Your task to perform on an android device: Go to Google maps Image 0: 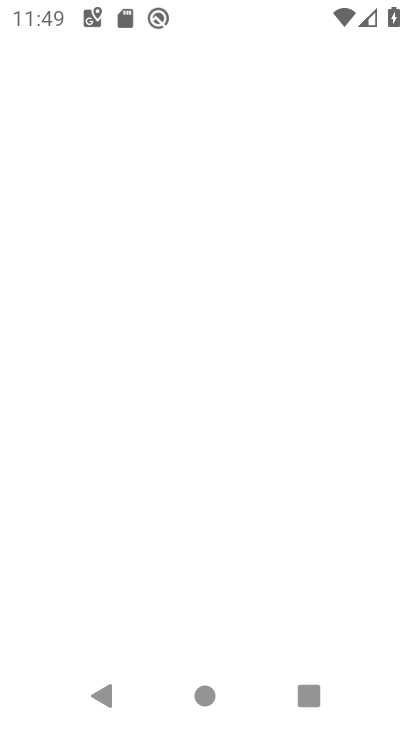
Step 0: drag from (203, 697) to (192, 21)
Your task to perform on an android device: Go to Google maps Image 1: 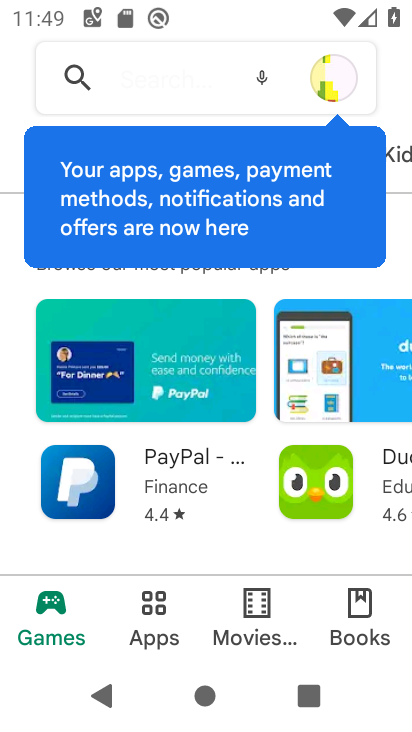
Step 1: press back button
Your task to perform on an android device: Go to Google maps Image 2: 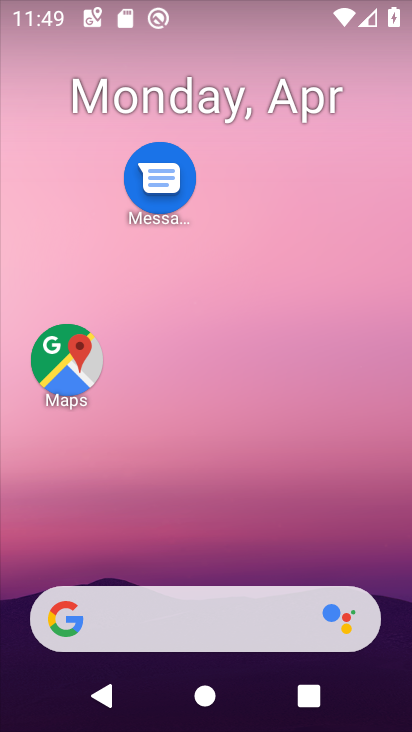
Step 2: drag from (207, 700) to (141, 181)
Your task to perform on an android device: Go to Google maps Image 3: 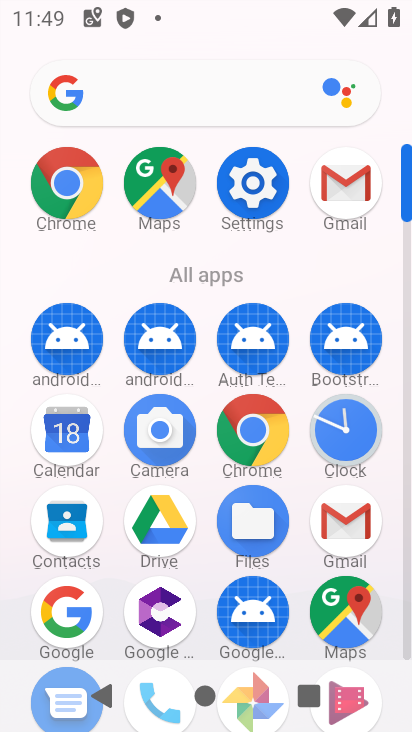
Step 3: click (351, 615)
Your task to perform on an android device: Go to Google maps Image 4: 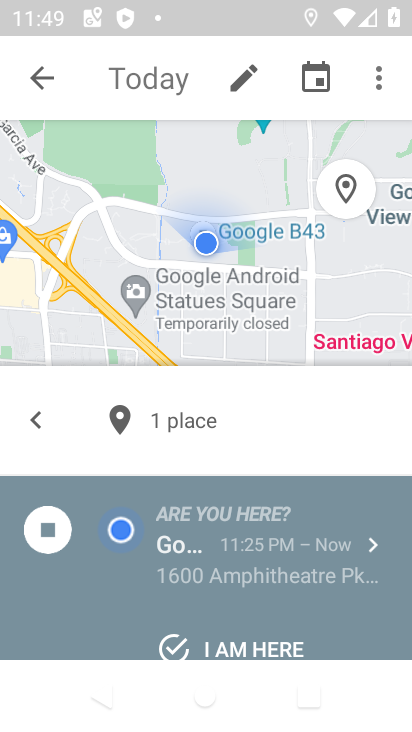
Step 4: task complete